Your task to perform on an android device: What's the weather? Image 0: 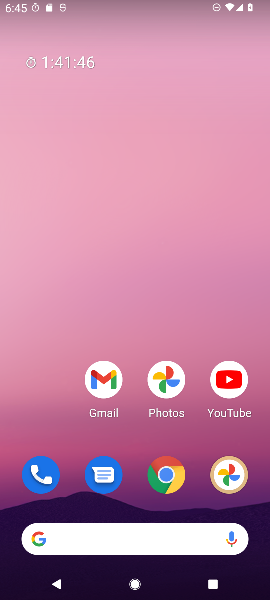
Step 0: press home button
Your task to perform on an android device: What's the weather? Image 1: 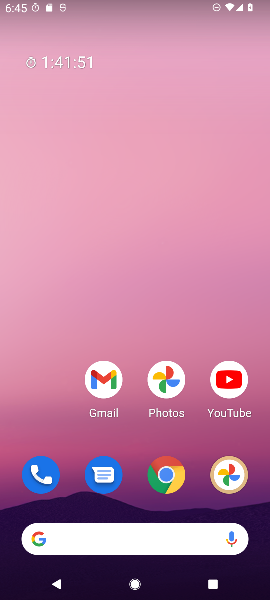
Step 1: click (143, 530)
Your task to perform on an android device: What's the weather? Image 2: 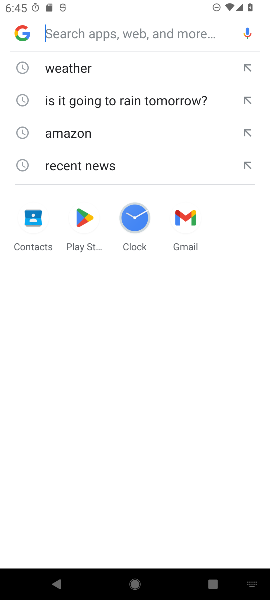
Step 2: click (81, 61)
Your task to perform on an android device: What's the weather? Image 3: 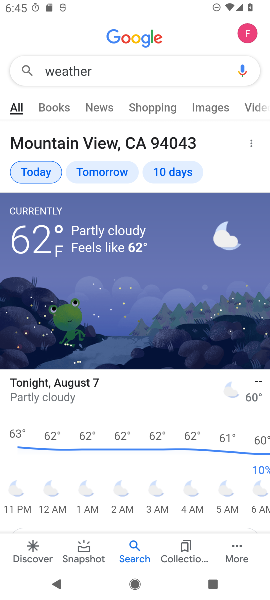
Step 3: task complete